Your task to perform on an android device: toggle show notifications on the lock screen Image 0: 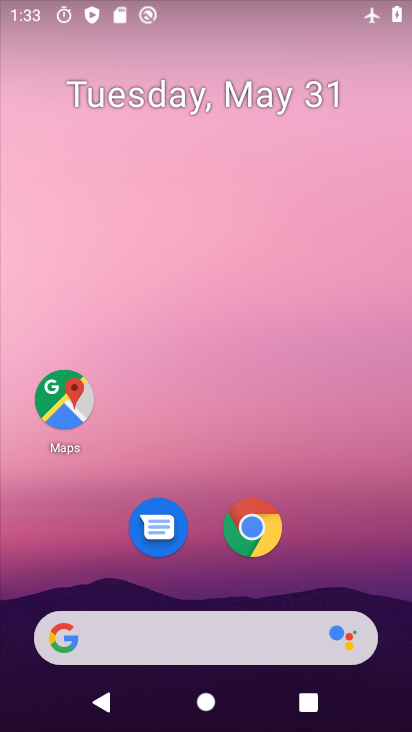
Step 0: drag from (164, 710) to (385, 6)
Your task to perform on an android device: toggle show notifications on the lock screen Image 1: 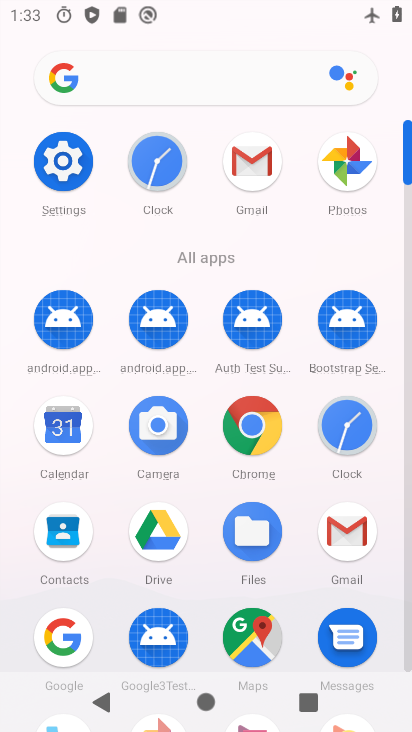
Step 1: click (72, 180)
Your task to perform on an android device: toggle show notifications on the lock screen Image 2: 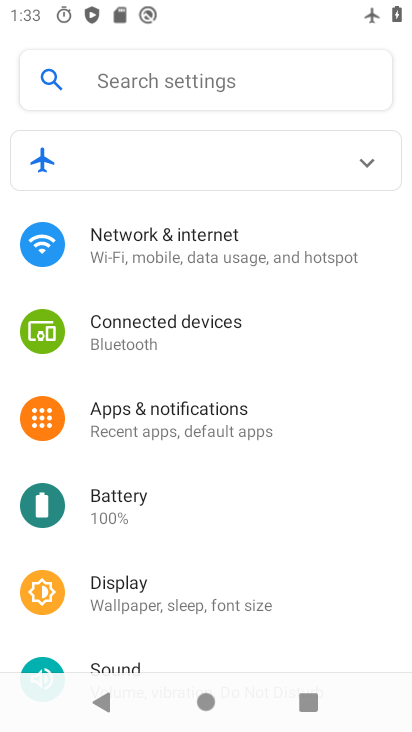
Step 2: click (205, 418)
Your task to perform on an android device: toggle show notifications on the lock screen Image 3: 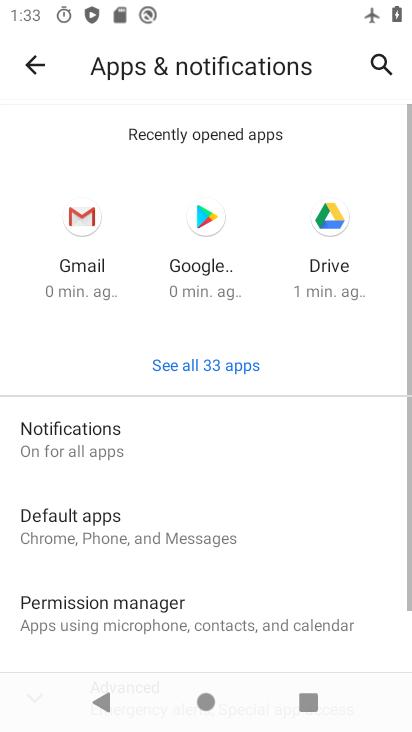
Step 3: drag from (221, 621) to (205, 181)
Your task to perform on an android device: toggle show notifications on the lock screen Image 4: 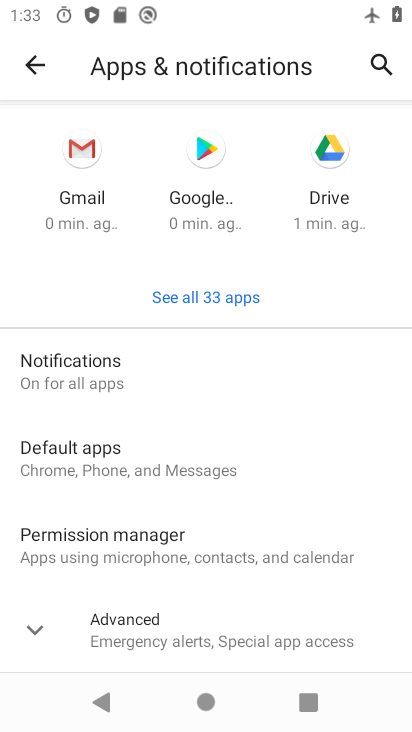
Step 4: click (179, 635)
Your task to perform on an android device: toggle show notifications on the lock screen Image 5: 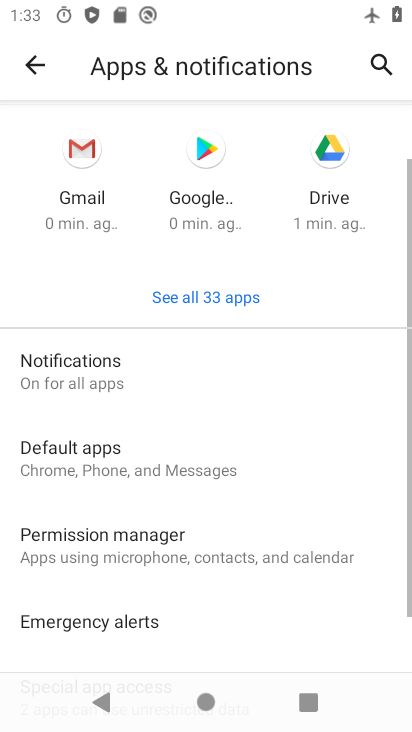
Step 5: click (111, 355)
Your task to perform on an android device: toggle show notifications on the lock screen Image 6: 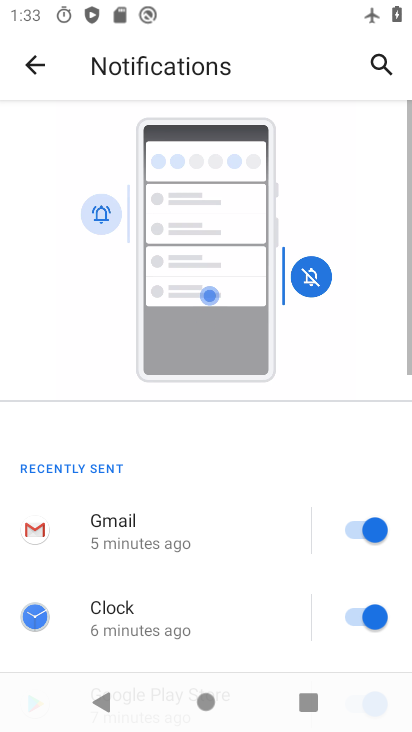
Step 6: drag from (234, 627) to (246, 228)
Your task to perform on an android device: toggle show notifications on the lock screen Image 7: 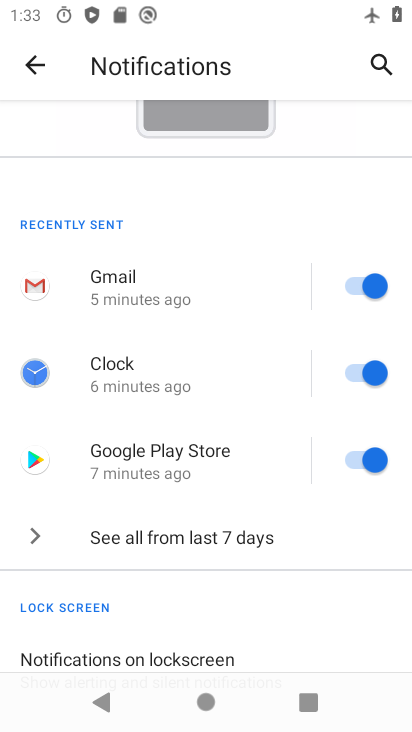
Step 7: click (215, 656)
Your task to perform on an android device: toggle show notifications on the lock screen Image 8: 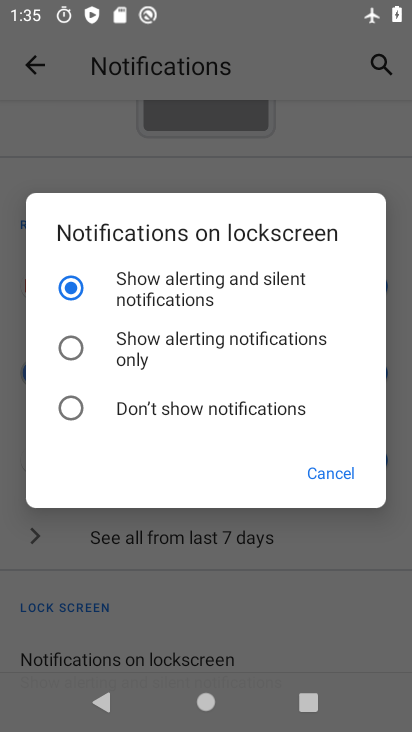
Step 8: task complete